Your task to perform on an android device: turn on airplane mode Image 0: 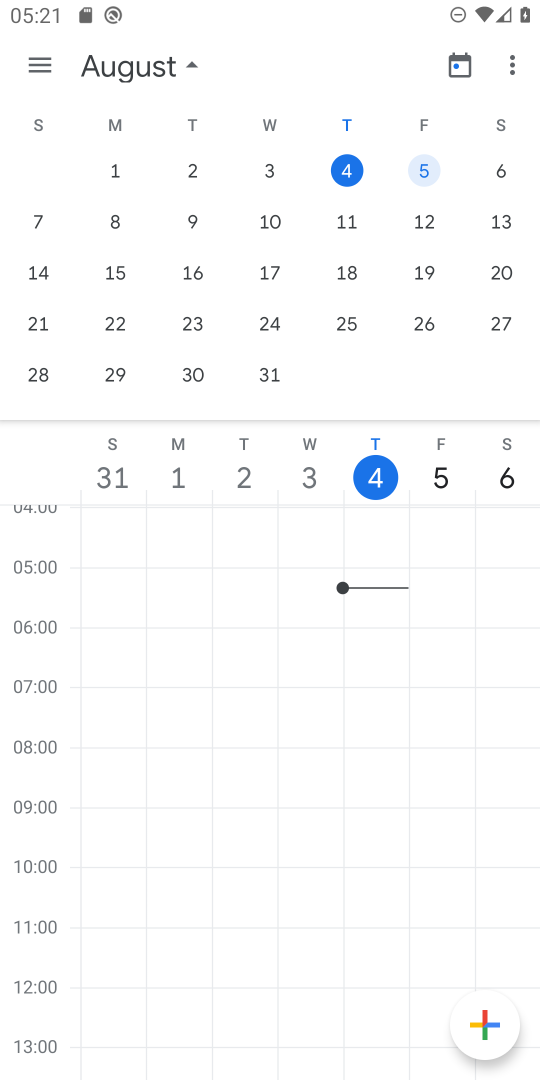
Step 0: press home button
Your task to perform on an android device: turn on airplane mode Image 1: 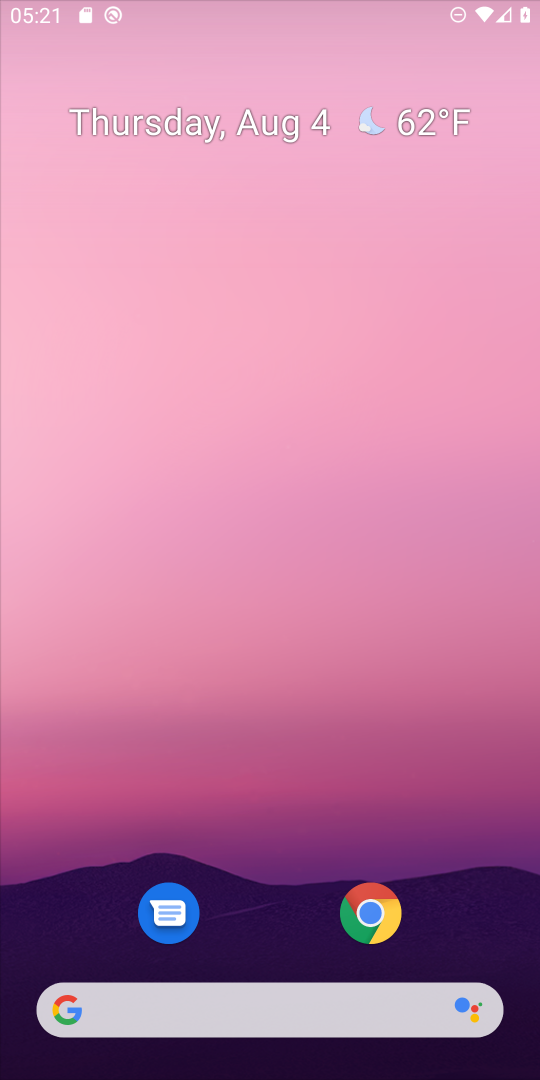
Step 1: drag from (360, 663) to (452, 69)
Your task to perform on an android device: turn on airplane mode Image 2: 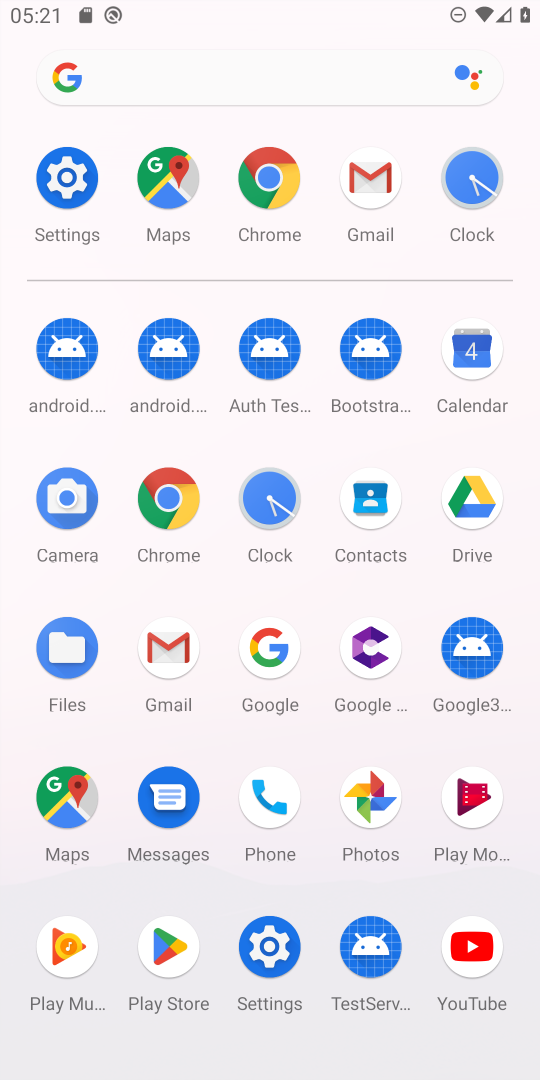
Step 2: click (66, 158)
Your task to perform on an android device: turn on airplane mode Image 3: 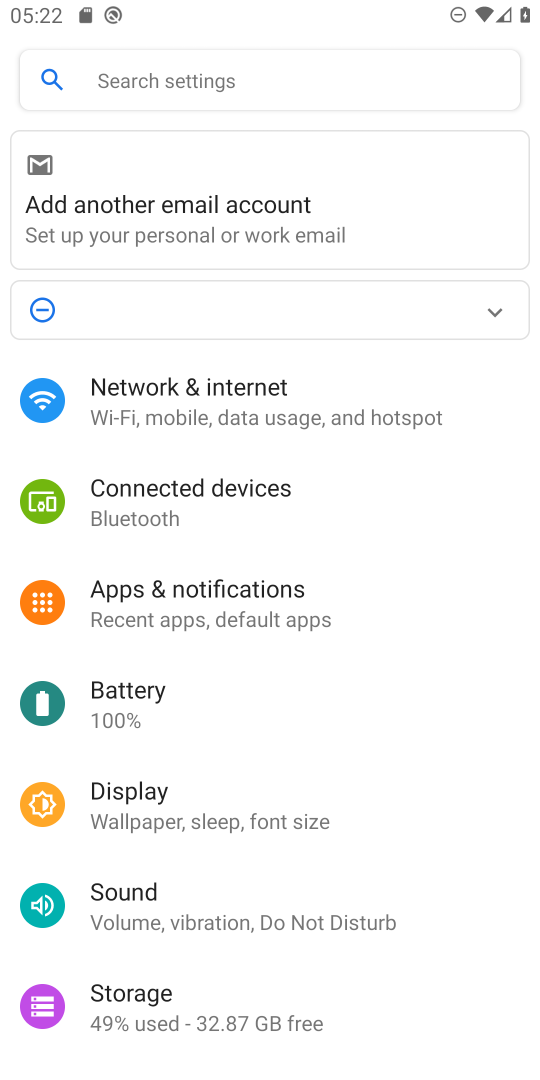
Step 3: click (227, 415)
Your task to perform on an android device: turn on airplane mode Image 4: 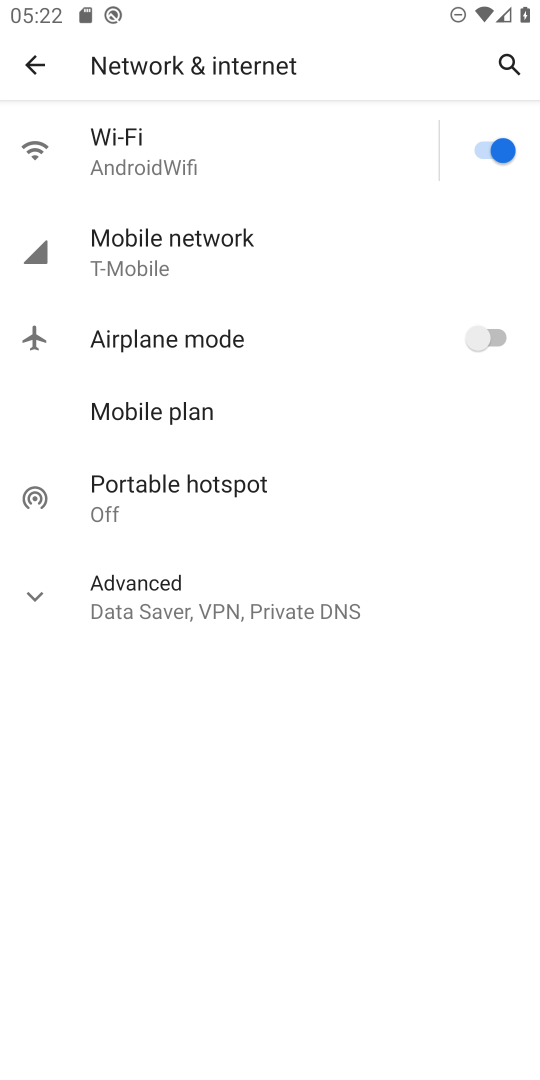
Step 4: click (480, 335)
Your task to perform on an android device: turn on airplane mode Image 5: 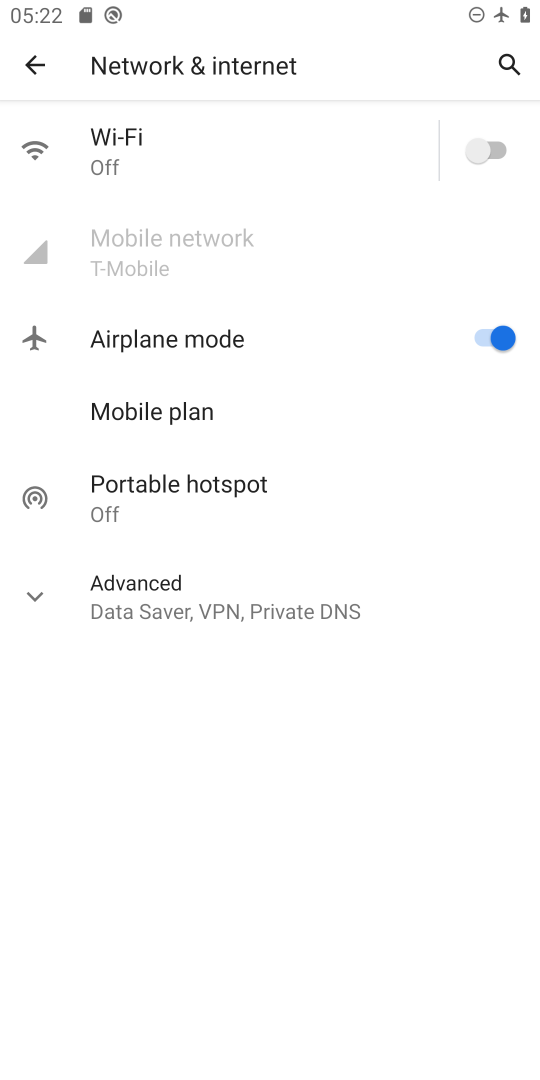
Step 5: task complete